Your task to perform on an android device: Open CNN.com Image 0: 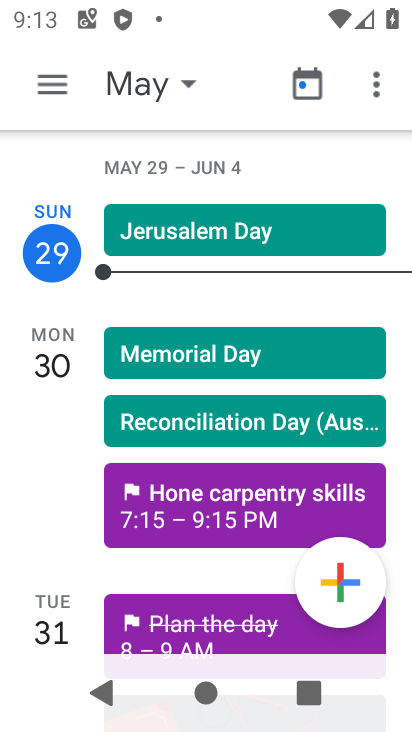
Step 0: press home button
Your task to perform on an android device: Open CNN.com Image 1: 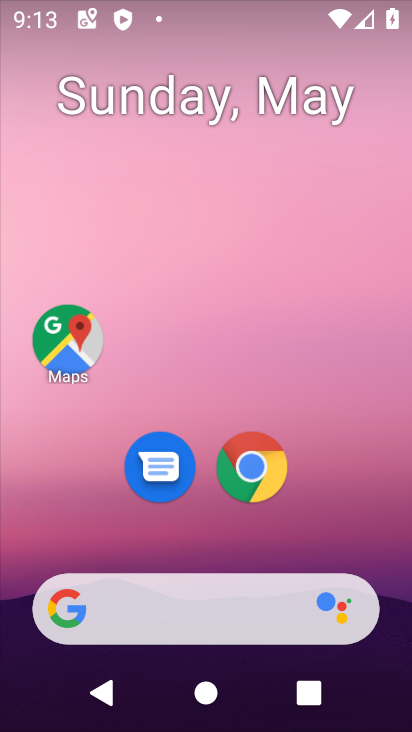
Step 1: click (264, 486)
Your task to perform on an android device: Open CNN.com Image 2: 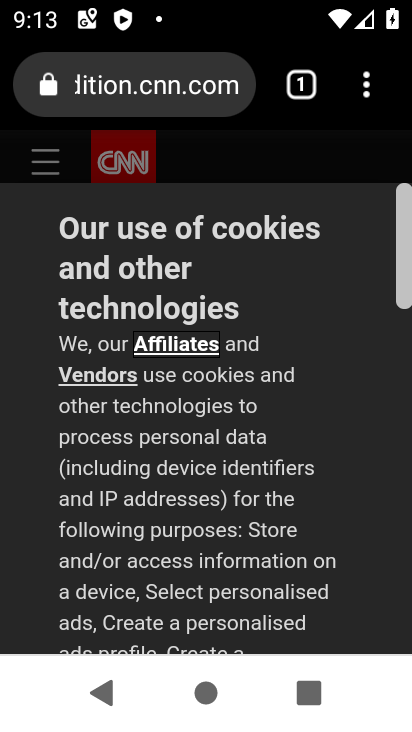
Step 2: click (163, 94)
Your task to perform on an android device: Open CNN.com Image 3: 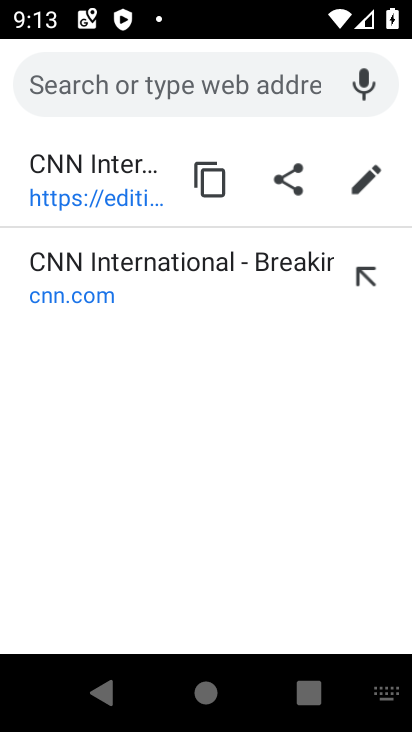
Step 3: click (84, 268)
Your task to perform on an android device: Open CNN.com Image 4: 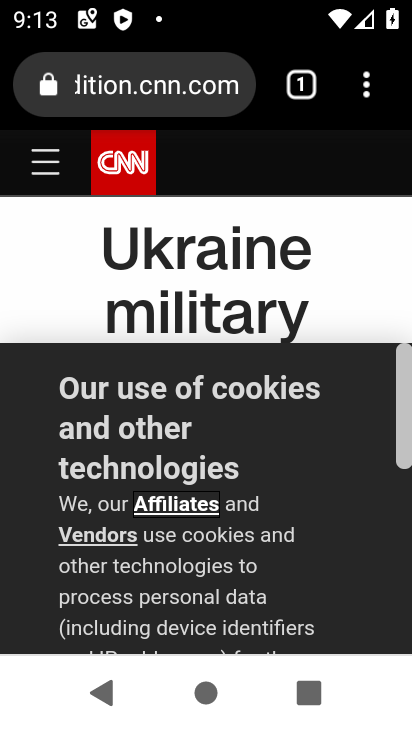
Step 4: task complete